Your task to perform on an android device: Open CNN.com Image 0: 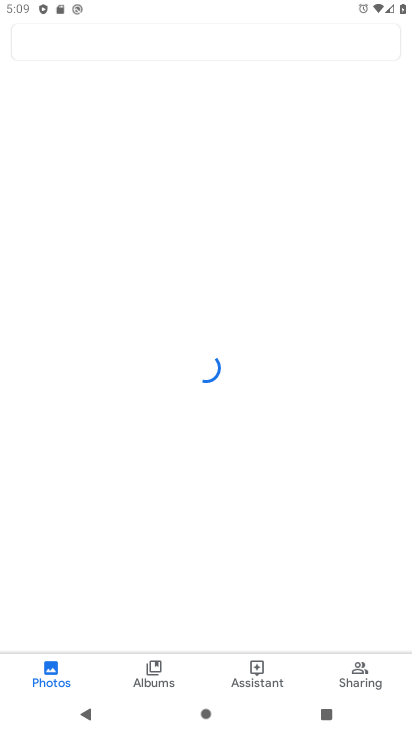
Step 0: press home button
Your task to perform on an android device: Open CNN.com Image 1: 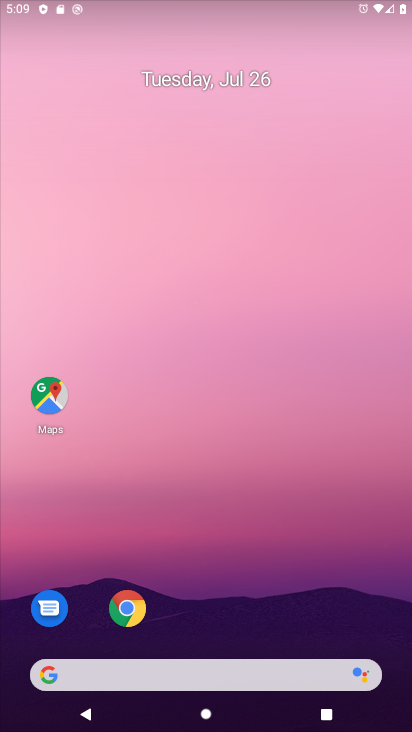
Step 1: drag from (375, 620) to (223, 30)
Your task to perform on an android device: Open CNN.com Image 2: 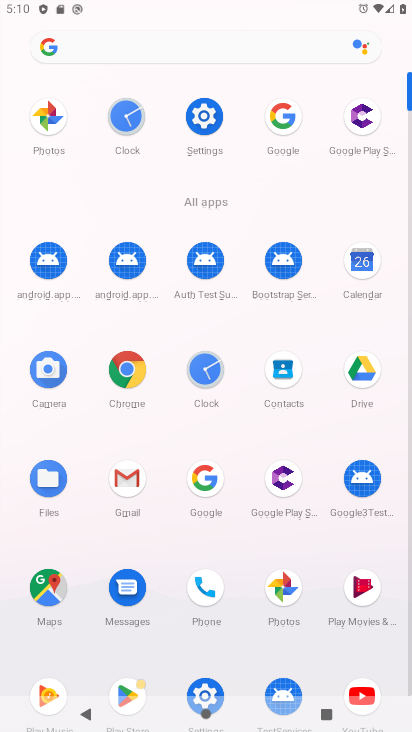
Step 2: click (203, 499)
Your task to perform on an android device: Open CNN.com Image 3: 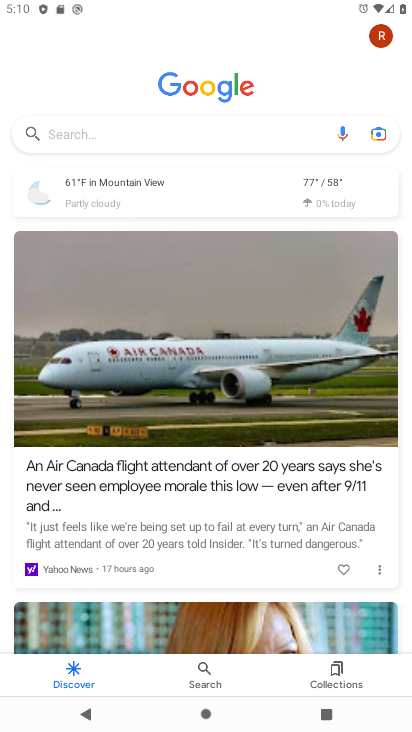
Step 3: click (126, 124)
Your task to perform on an android device: Open CNN.com Image 4: 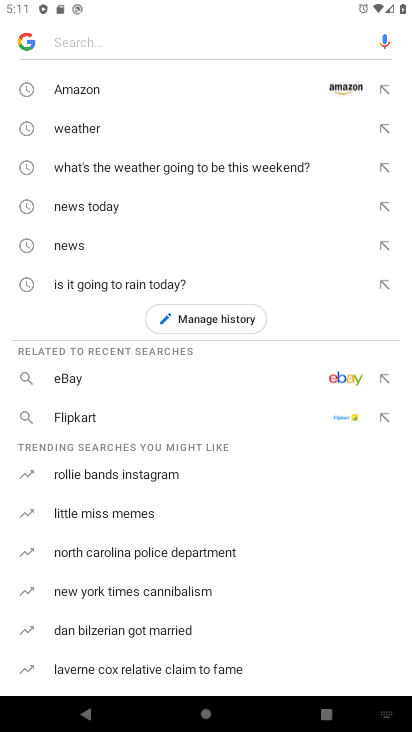
Step 4: type "CNN.com"
Your task to perform on an android device: Open CNN.com Image 5: 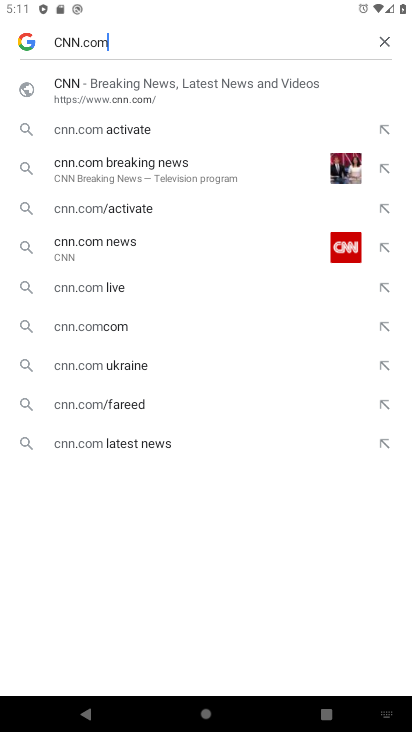
Step 5: click (68, 96)
Your task to perform on an android device: Open CNN.com Image 6: 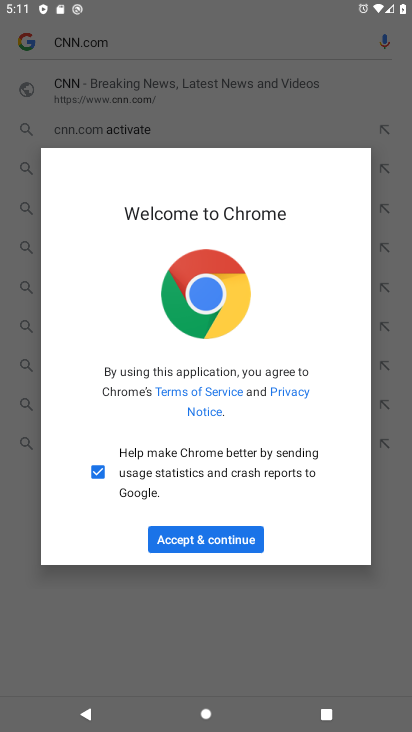
Step 6: click (213, 532)
Your task to perform on an android device: Open CNN.com Image 7: 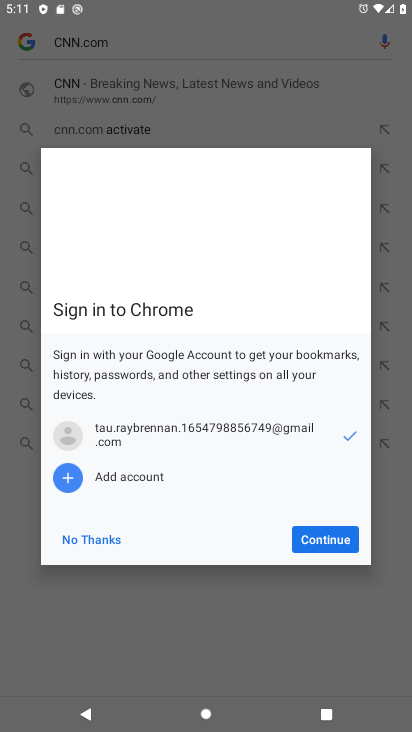
Step 7: click (325, 546)
Your task to perform on an android device: Open CNN.com Image 8: 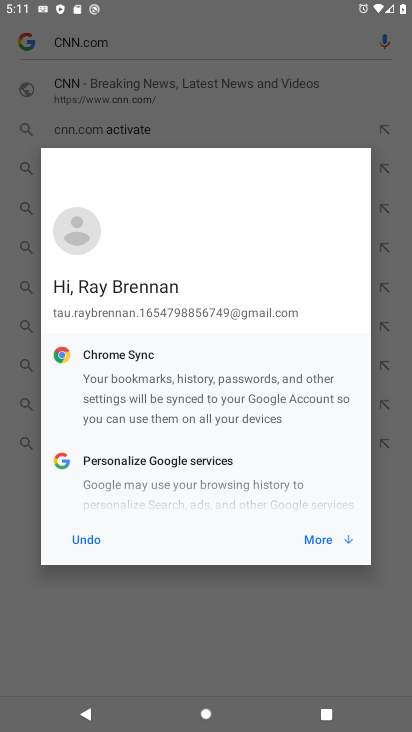
Step 8: click (325, 545)
Your task to perform on an android device: Open CNN.com Image 9: 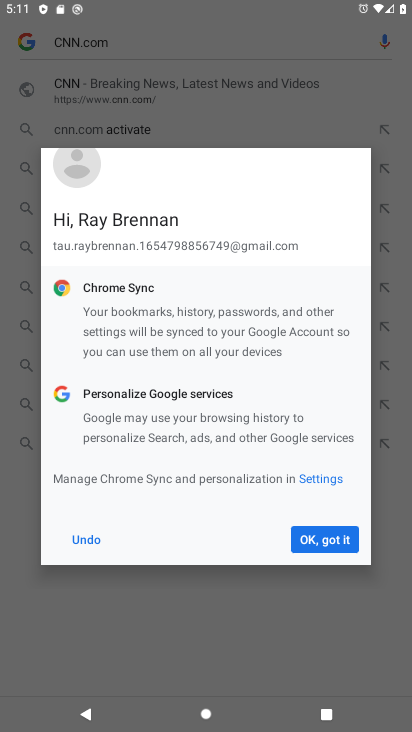
Step 9: click (325, 545)
Your task to perform on an android device: Open CNN.com Image 10: 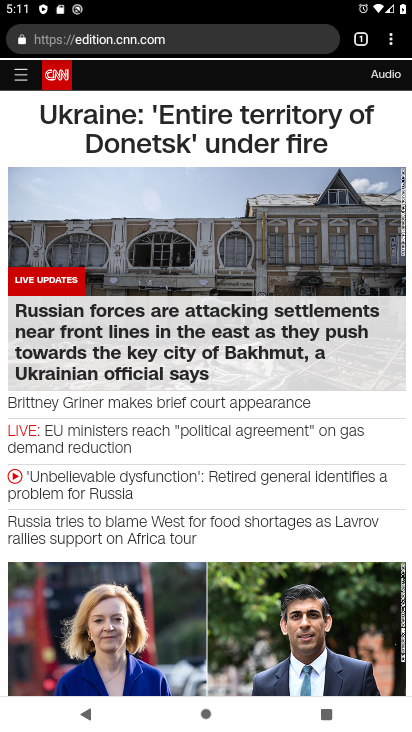
Step 10: task complete